Your task to perform on an android device: Open the Play Movies app and select the watchlist tab. Image 0: 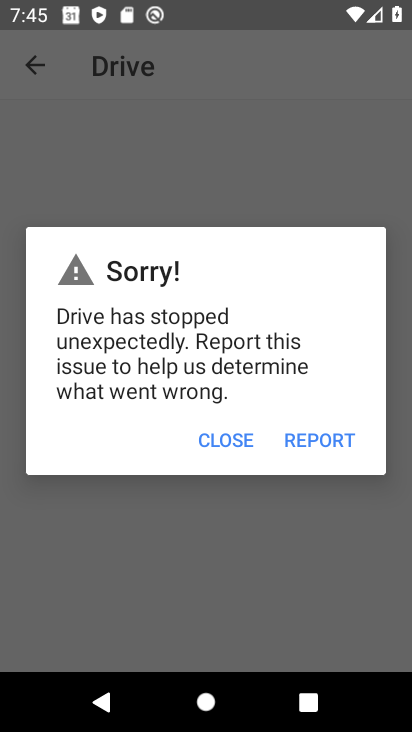
Step 0: press home button
Your task to perform on an android device: Open the Play Movies app and select the watchlist tab. Image 1: 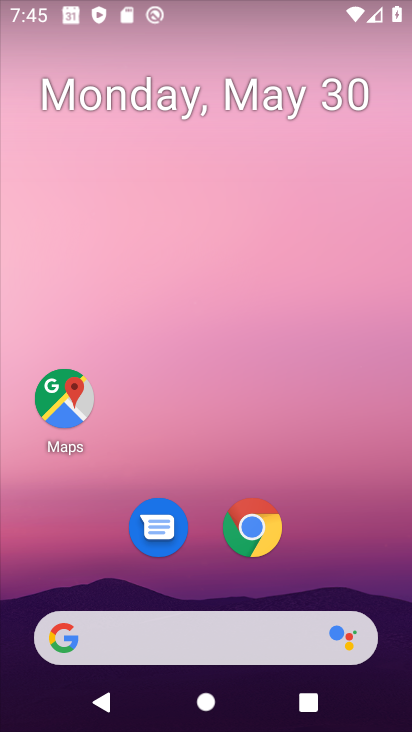
Step 1: drag from (309, 579) to (333, 0)
Your task to perform on an android device: Open the Play Movies app and select the watchlist tab. Image 2: 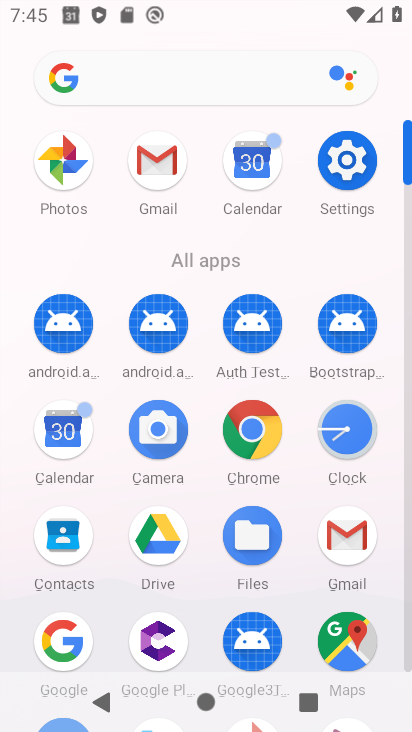
Step 2: drag from (199, 598) to (246, 284)
Your task to perform on an android device: Open the Play Movies app and select the watchlist tab. Image 3: 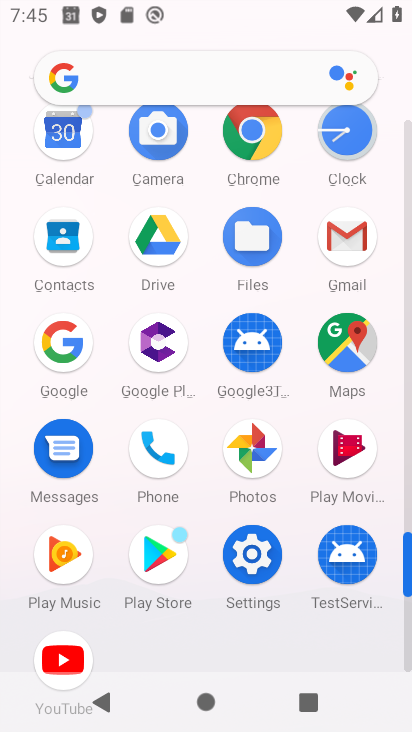
Step 3: click (360, 457)
Your task to perform on an android device: Open the Play Movies app and select the watchlist tab. Image 4: 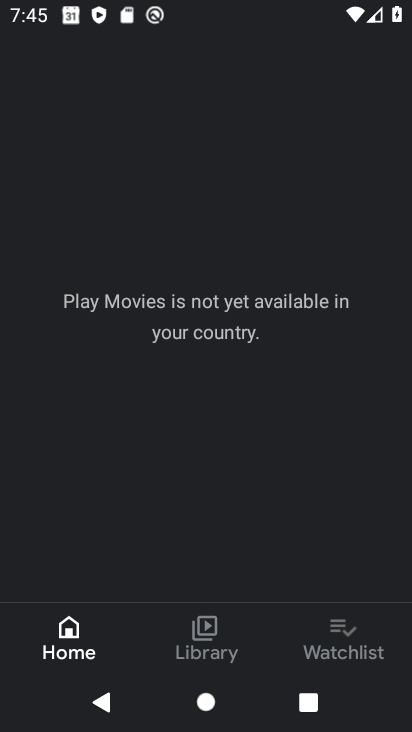
Step 4: click (342, 649)
Your task to perform on an android device: Open the Play Movies app and select the watchlist tab. Image 5: 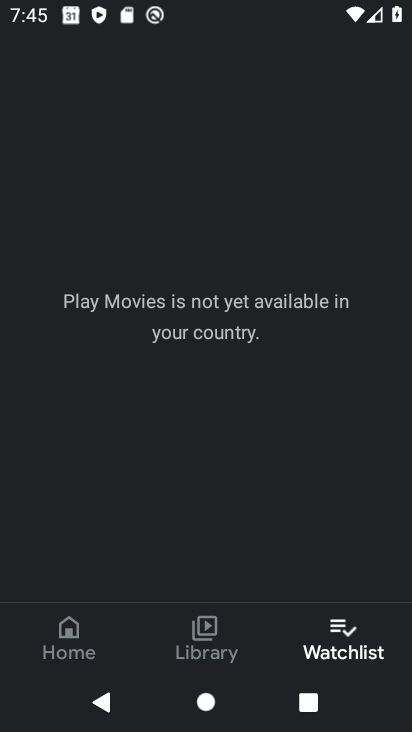
Step 5: task complete